Your task to perform on an android device: visit the assistant section in the google photos Image 0: 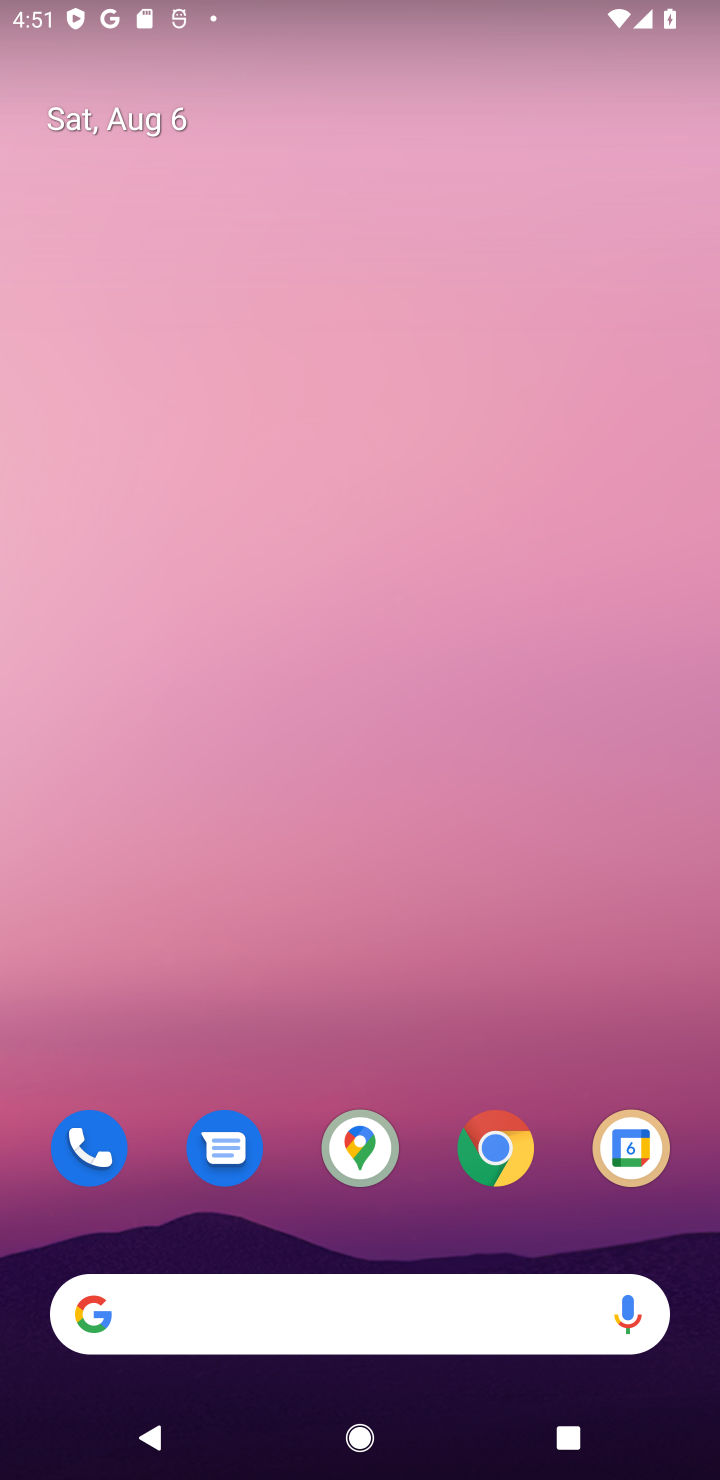
Step 0: drag from (423, 1265) to (344, 112)
Your task to perform on an android device: visit the assistant section in the google photos Image 1: 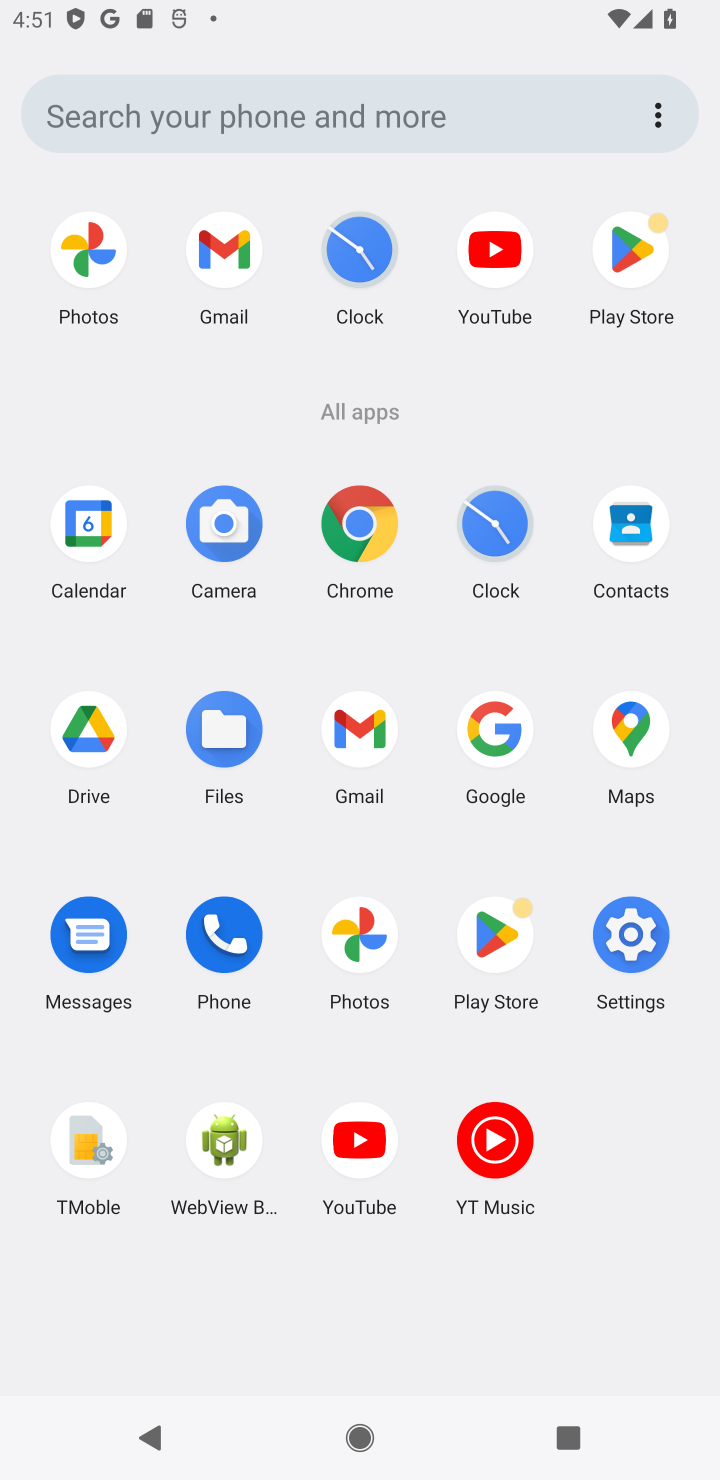
Step 1: click (393, 913)
Your task to perform on an android device: visit the assistant section in the google photos Image 2: 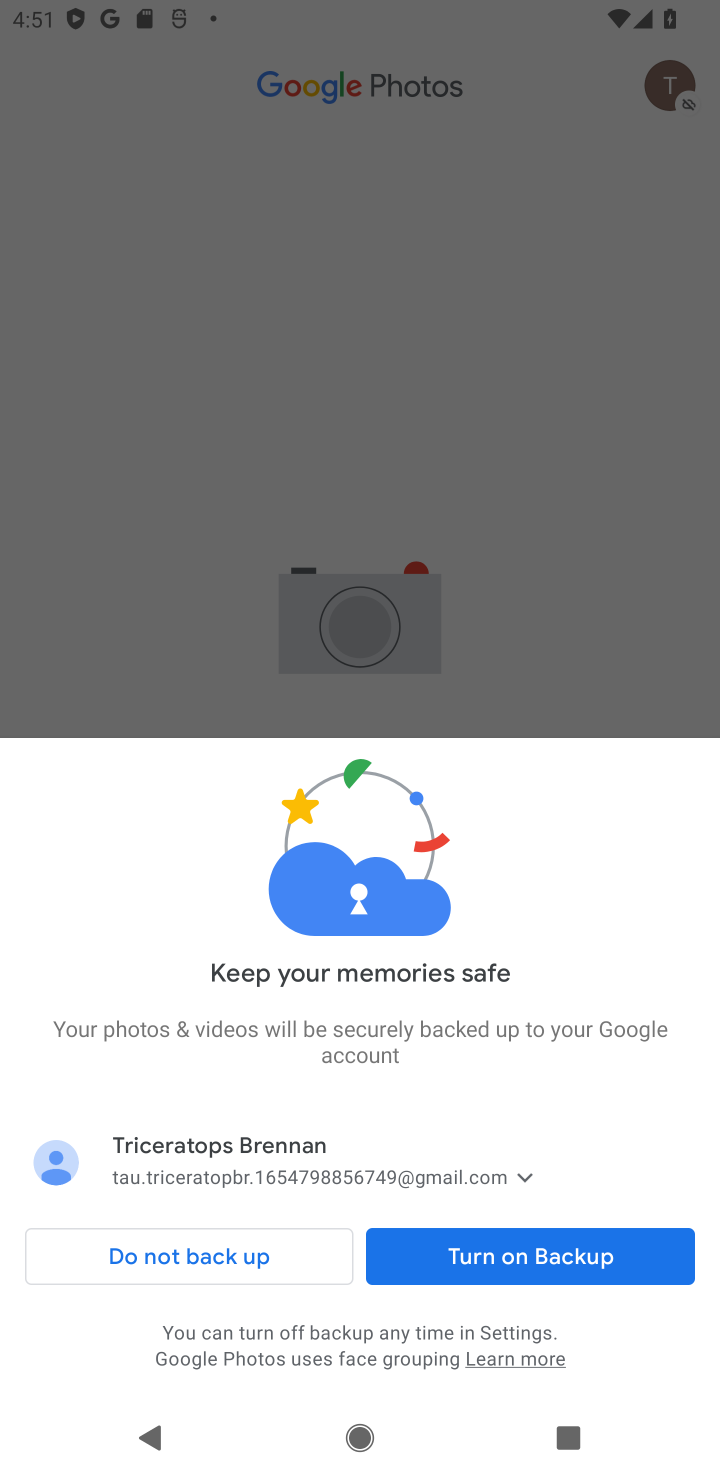
Step 2: click (507, 1259)
Your task to perform on an android device: visit the assistant section in the google photos Image 3: 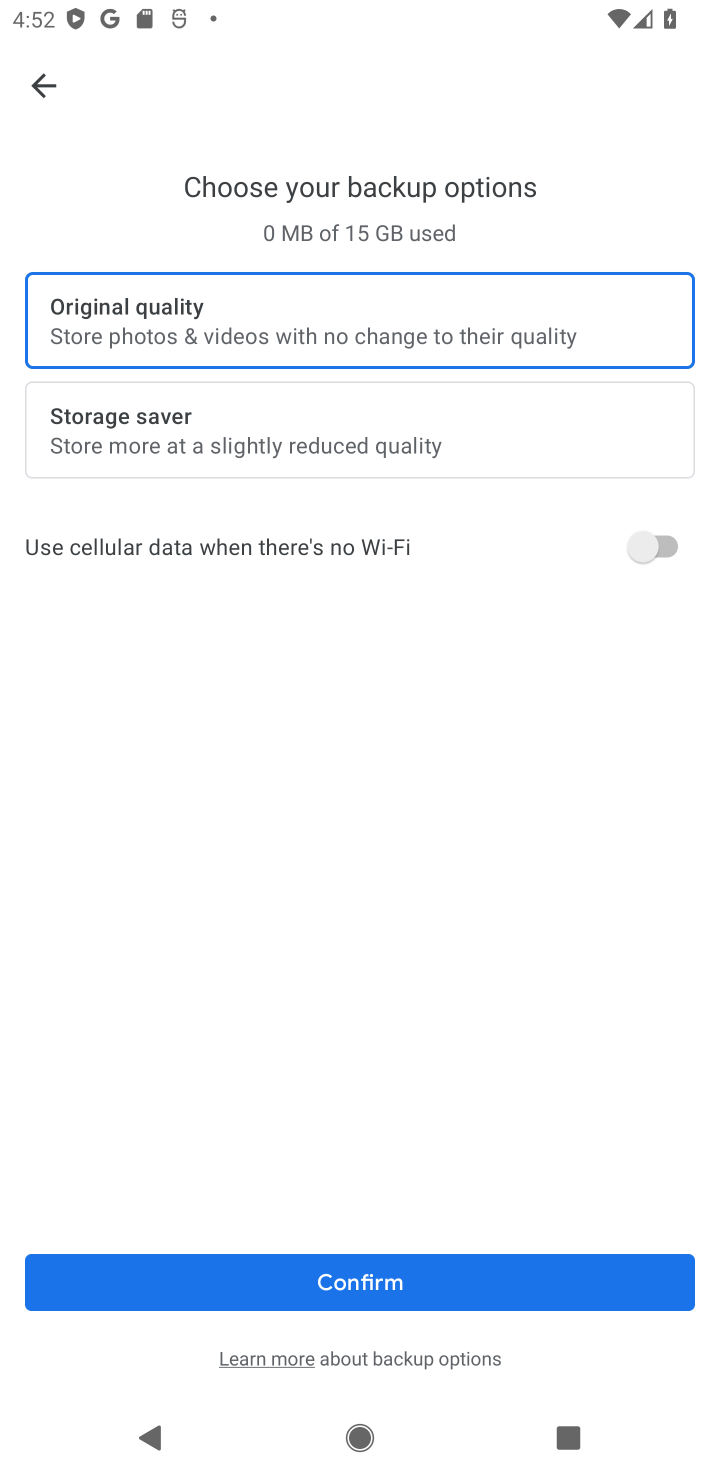
Step 3: click (418, 1259)
Your task to perform on an android device: visit the assistant section in the google photos Image 4: 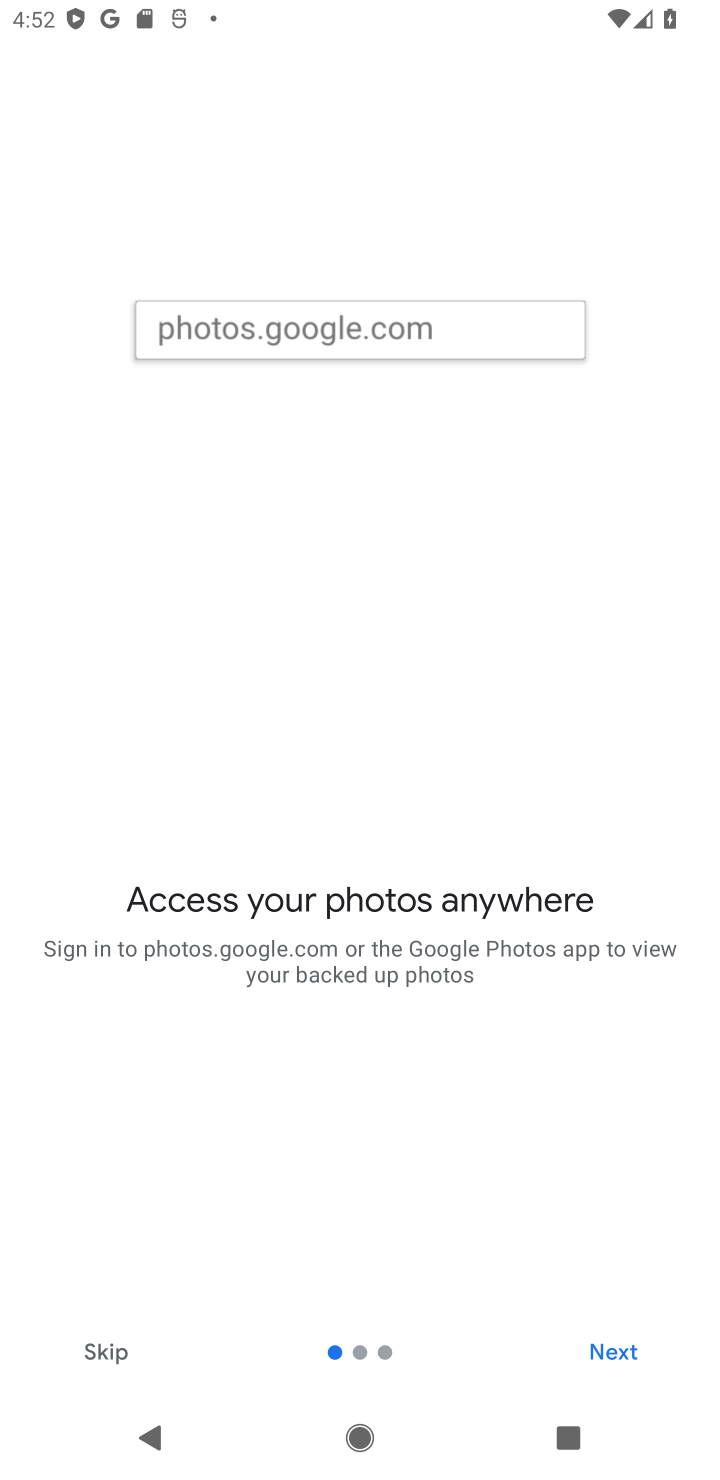
Step 4: click (117, 1338)
Your task to perform on an android device: visit the assistant section in the google photos Image 5: 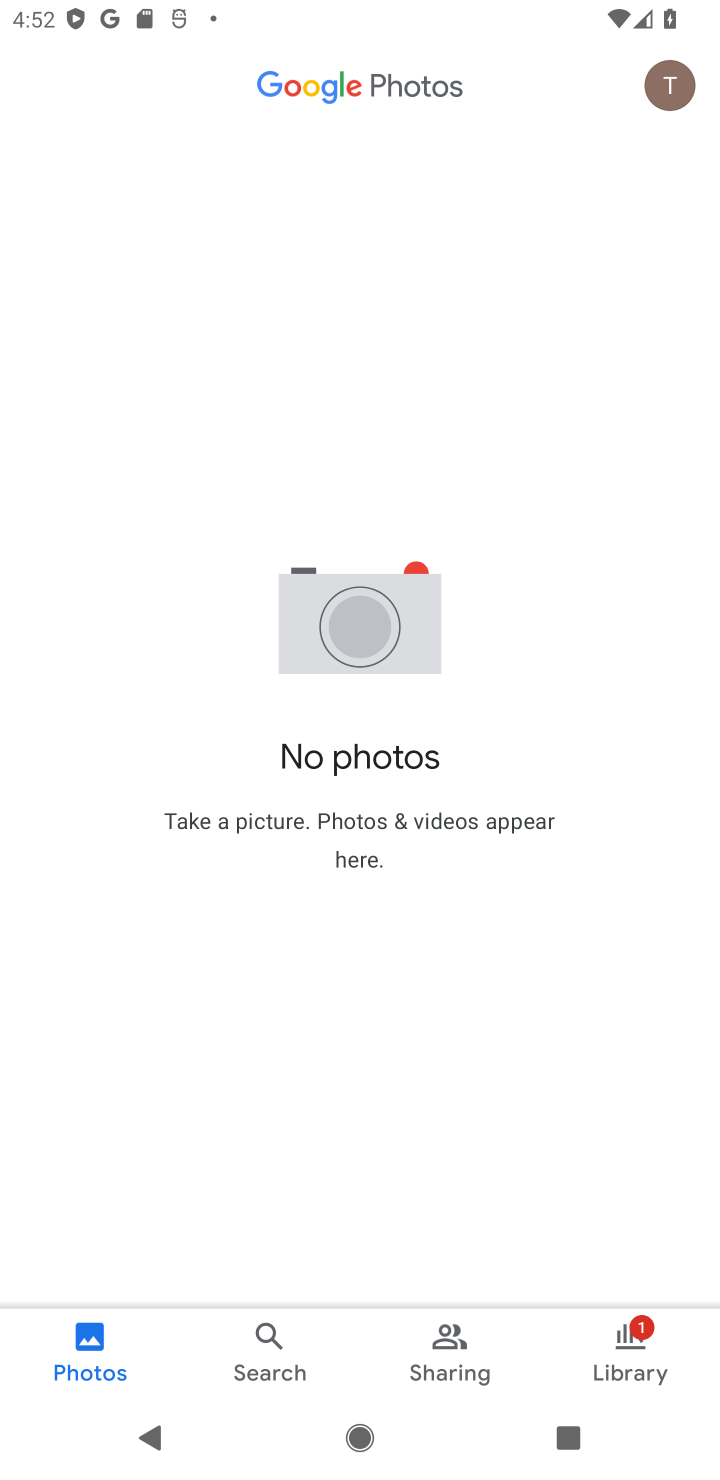
Step 5: click (446, 1354)
Your task to perform on an android device: visit the assistant section in the google photos Image 6: 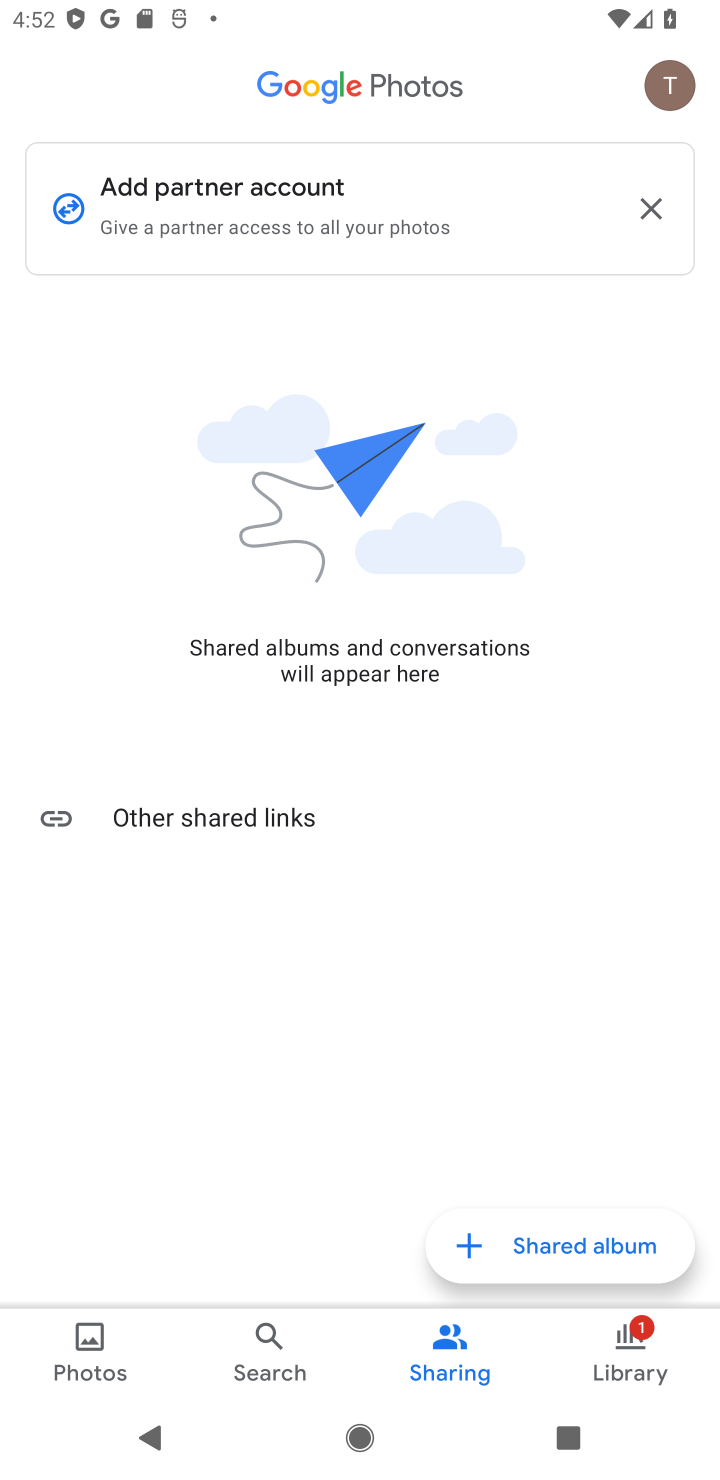
Step 6: task complete